Your task to perform on an android device: Do I have any events today? Image 0: 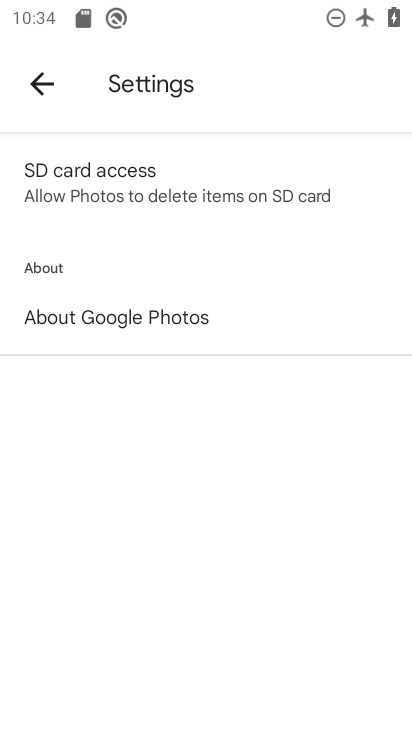
Step 0: press home button
Your task to perform on an android device: Do I have any events today? Image 1: 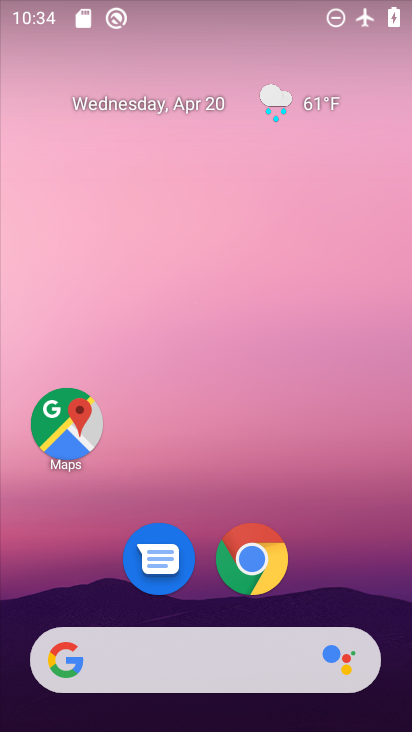
Step 1: drag from (377, 604) to (300, 151)
Your task to perform on an android device: Do I have any events today? Image 2: 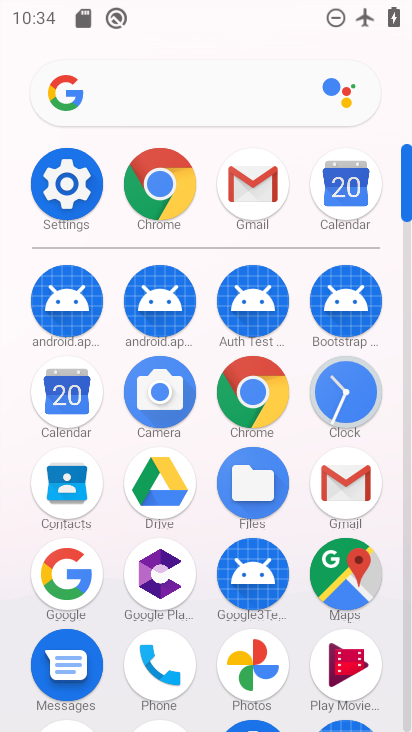
Step 2: click (62, 396)
Your task to perform on an android device: Do I have any events today? Image 3: 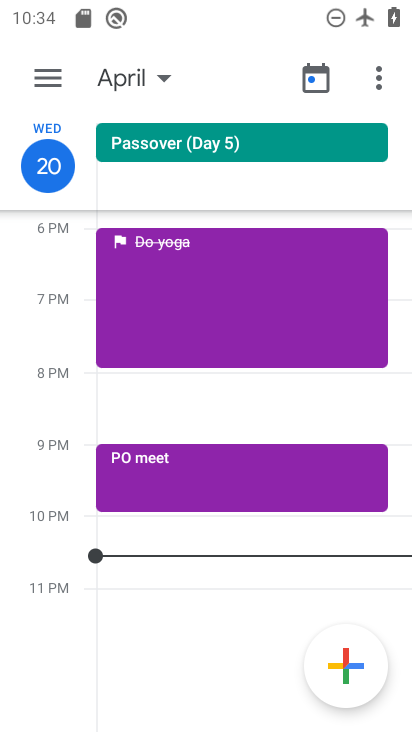
Step 3: click (47, 75)
Your task to perform on an android device: Do I have any events today? Image 4: 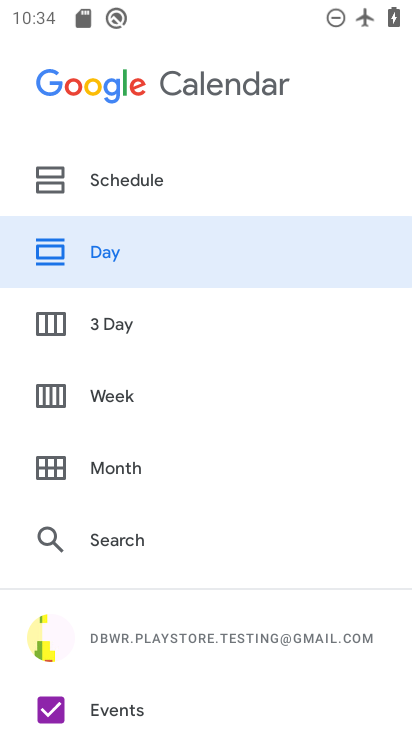
Step 4: click (137, 243)
Your task to perform on an android device: Do I have any events today? Image 5: 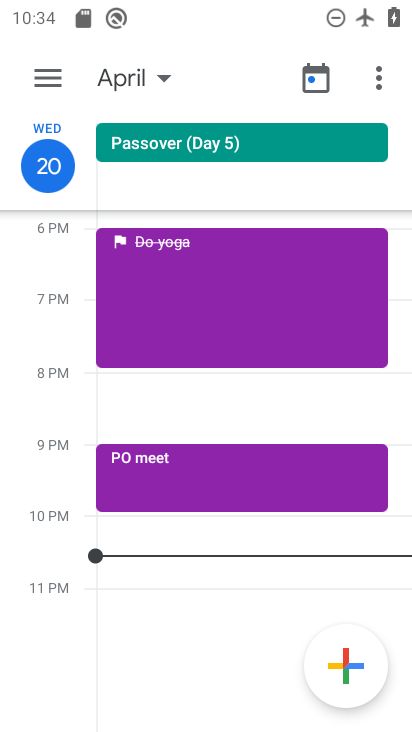
Step 5: task complete